Your task to perform on an android device: Open Youtube and go to "Your channel" Image 0: 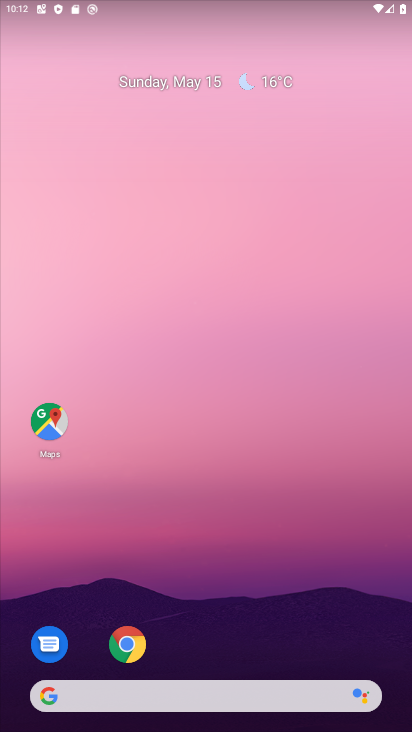
Step 0: drag from (286, 487) to (260, 84)
Your task to perform on an android device: Open Youtube and go to "Your channel" Image 1: 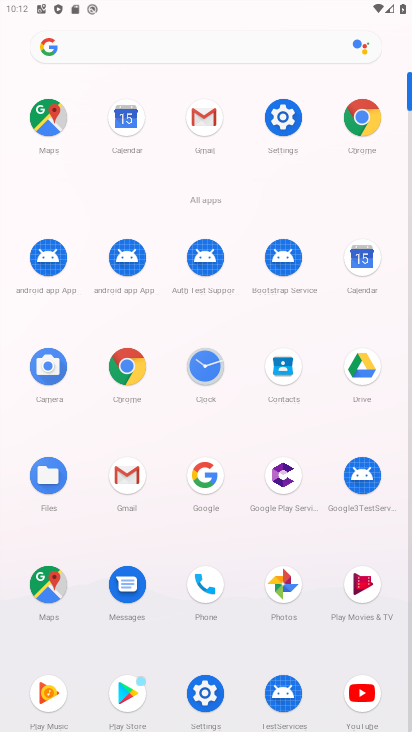
Step 1: click (363, 694)
Your task to perform on an android device: Open Youtube and go to "Your channel" Image 2: 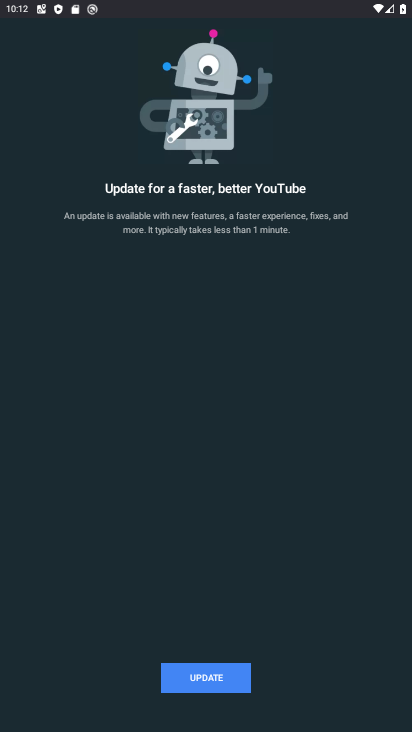
Step 2: click (191, 695)
Your task to perform on an android device: Open Youtube and go to "Your channel" Image 3: 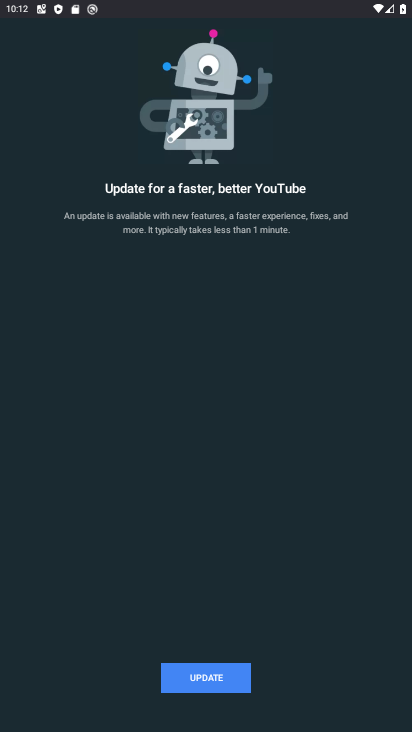
Step 3: click (209, 674)
Your task to perform on an android device: Open Youtube and go to "Your channel" Image 4: 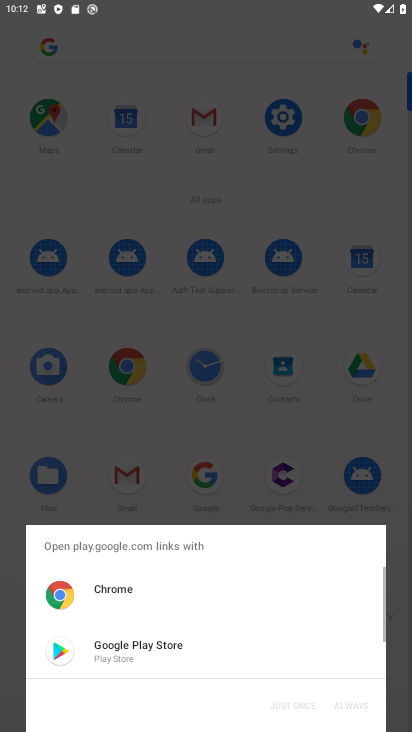
Step 4: click (137, 628)
Your task to perform on an android device: Open Youtube and go to "Your channel" Image 5: 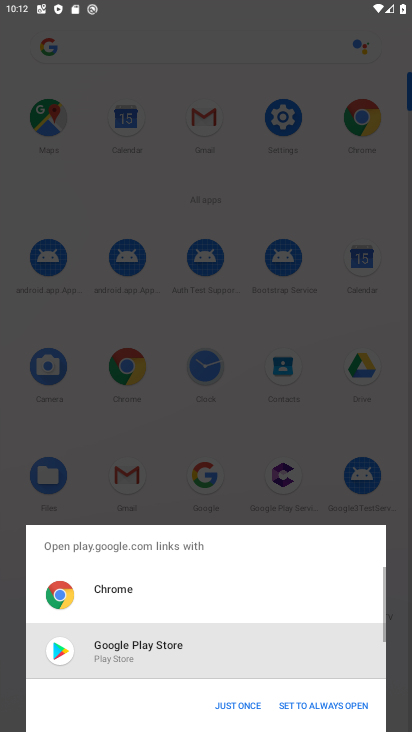
Step 5: click (250, 703)
Your task to perform on an android device: Open Youtube and go to "Your channel" Image 6: 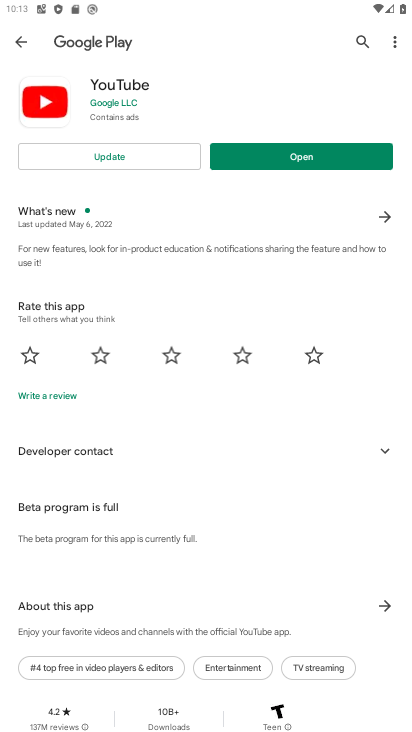
Step 6: click (134, 164)
Your task to perform on an android device: Open Youtube and go to "Your channel" Image 7: 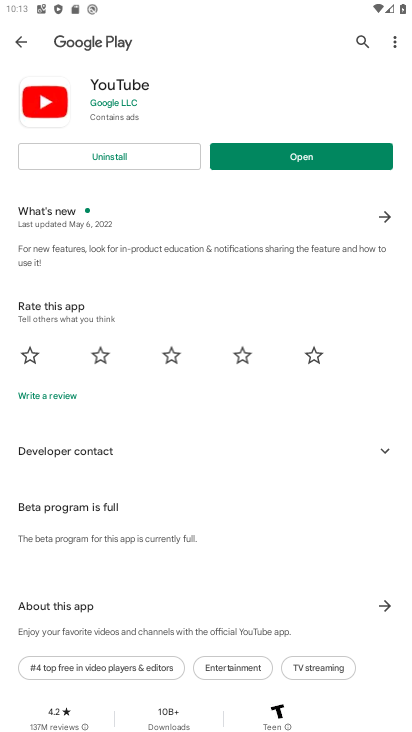
Step 7: click (250, 155)
Your task to perform on an android device: Open Youtube and go to "Your channel" Image 8: 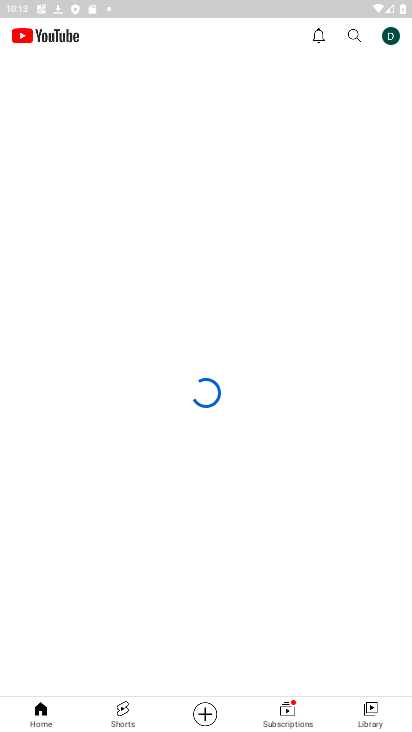
Step 8: click (396, 41)
Your task to perform on an android device: Open Youtube and go to "Your channel" Image 9: 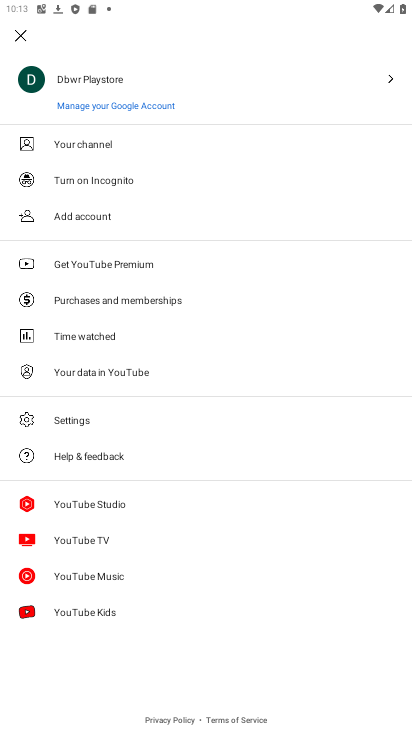
Step 9: click (101, 137)
Your task to perform on an android device: Open Youtube and go to "Your channel" Image 10: 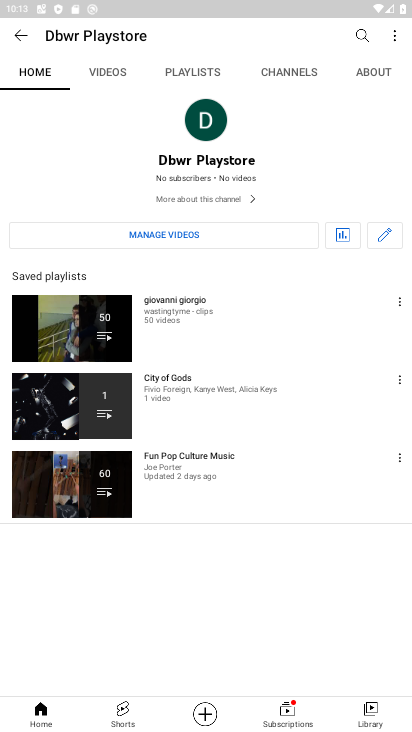
Step 10: task complete